Your task to perform on an android device: change text size in settings app Image 0: 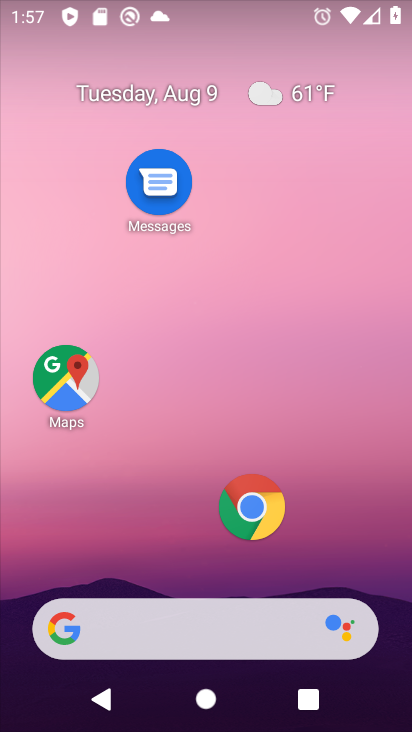
Step 0: drag from (129, 550) to (291, 9)
Your task to perform on an android device: change text size in settings app Image 1: 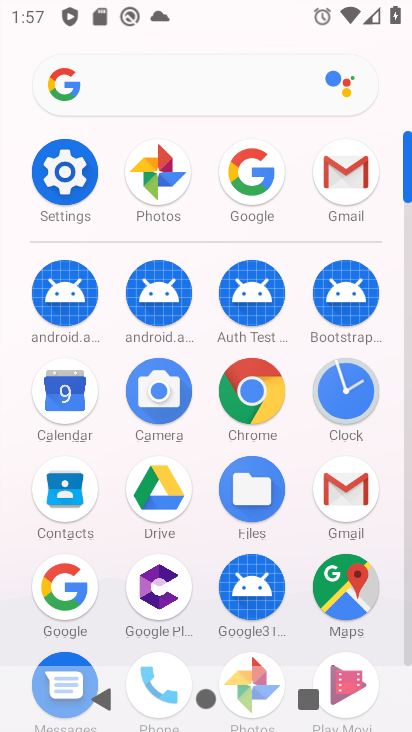
Step 1: click (70, 182)
Your task to perform on an android device: change text size in settings app Image 2: 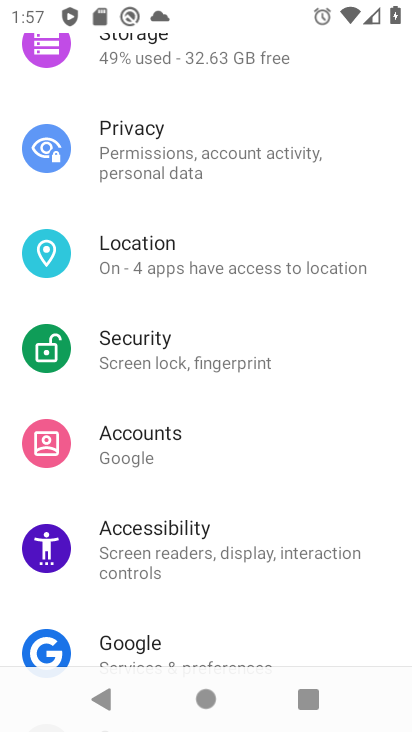
Step 2: drag from (269, 183) to (229, 719)
Your task to perform on an android device: change text size in settings app Image 3: 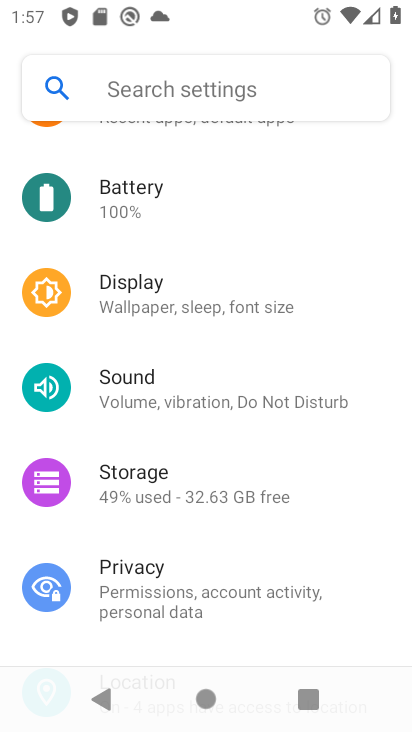
Step 3: click (177, 93)
Your task to perform on an android device: change text size in settings app Image 4: 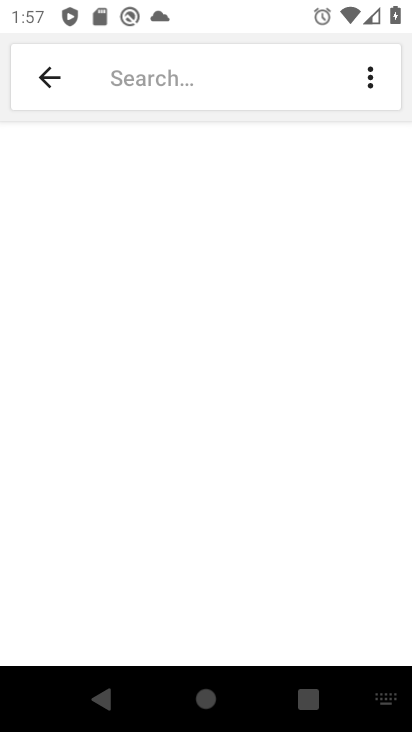
Step 4: type "text size"
Your task to perform on an android device: change text size in settings app Image 5: 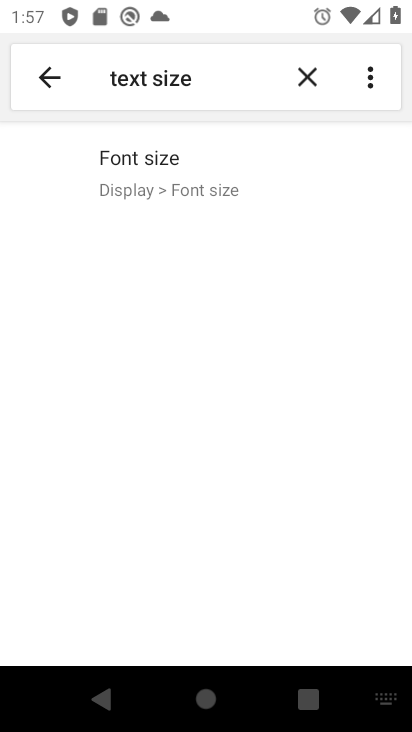
Step 5: click (187, 179)
Your task to perform on an android device: change text size in settings app Image 6: 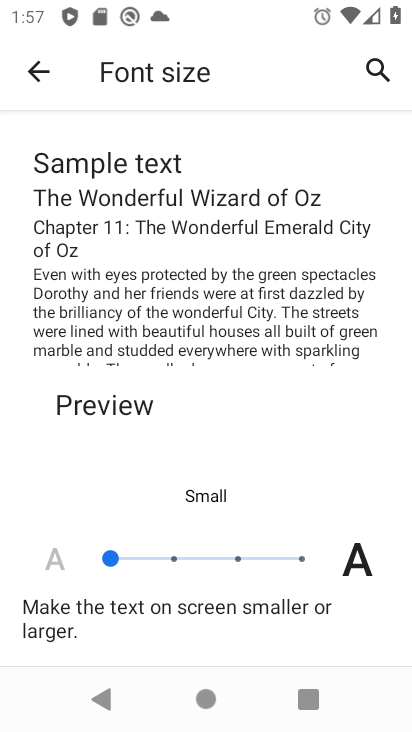
Step 6: task complete